Your task to perform on an android device: turn notification dots off Image 0: 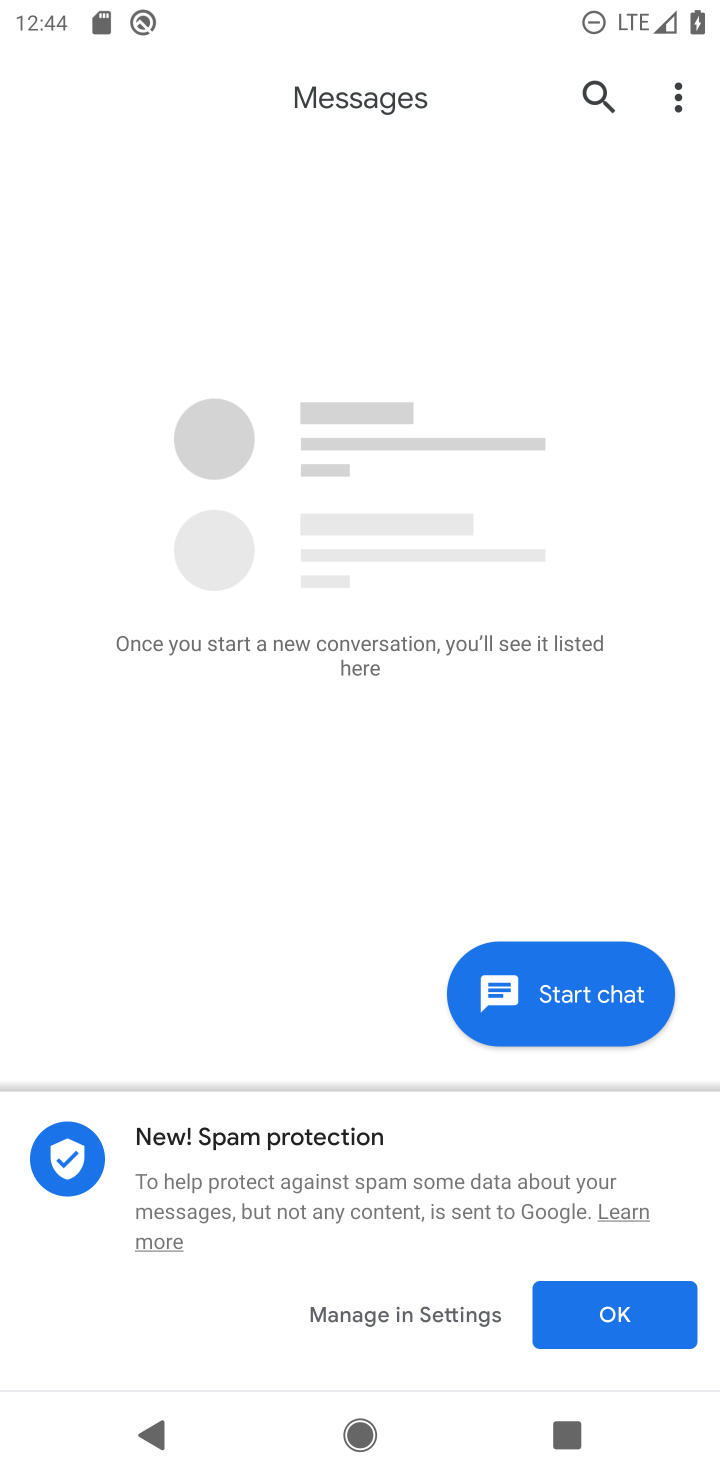
Step 0: press home button
Your task to perform on an android device: turn notification dots off Image 1: 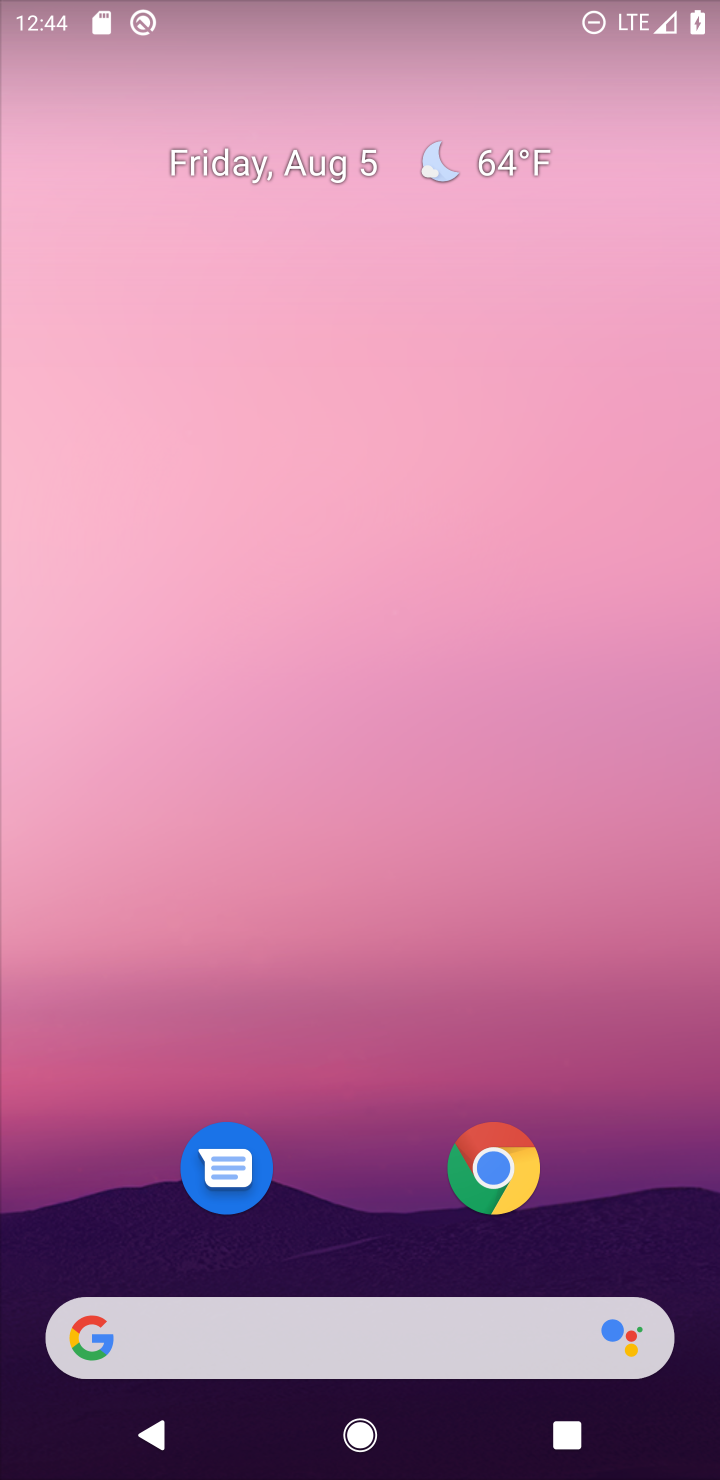
Step 1: drag from (666, 1034) to (471, 26)
Your task to perform on an android device: turn notification dots off Image 2: 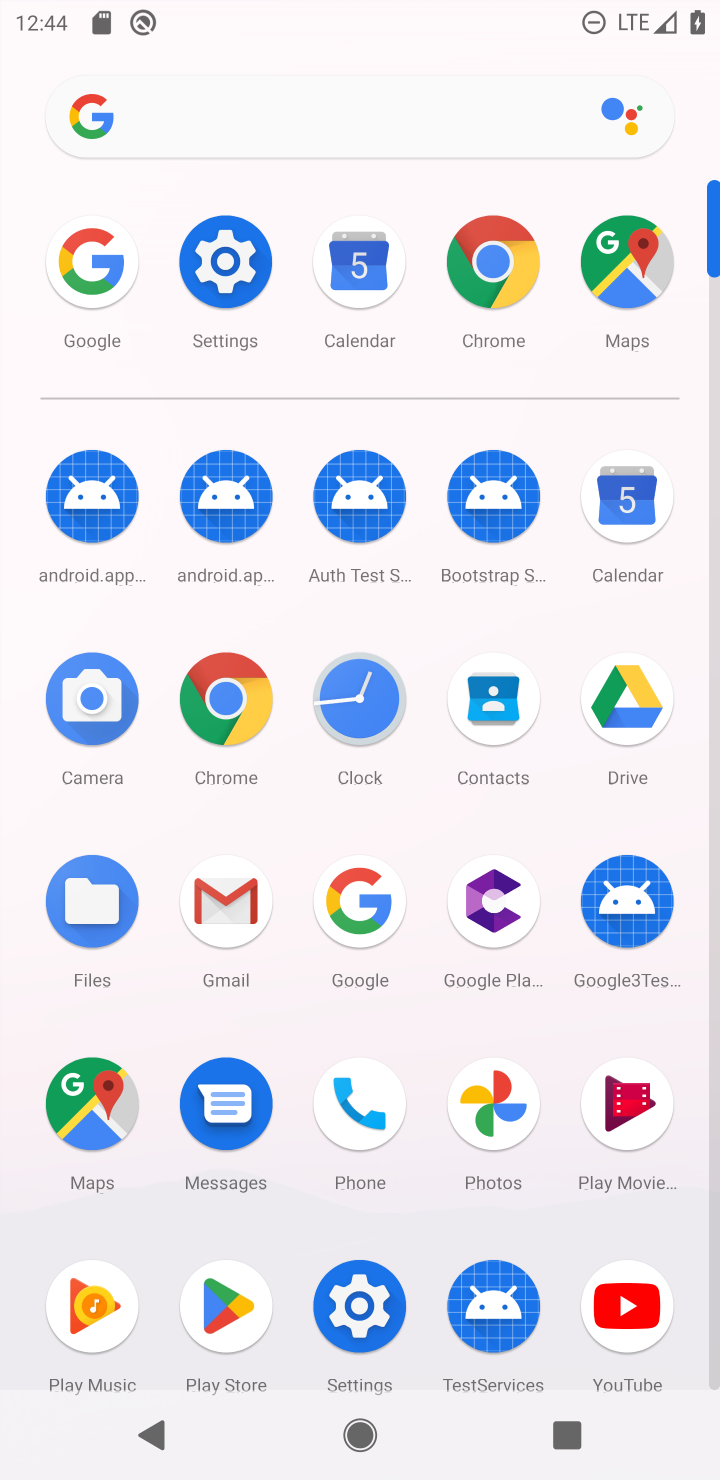
Step 2: click (209, 268)
Your task to perform on an android device: turn notification dots off Image 3: 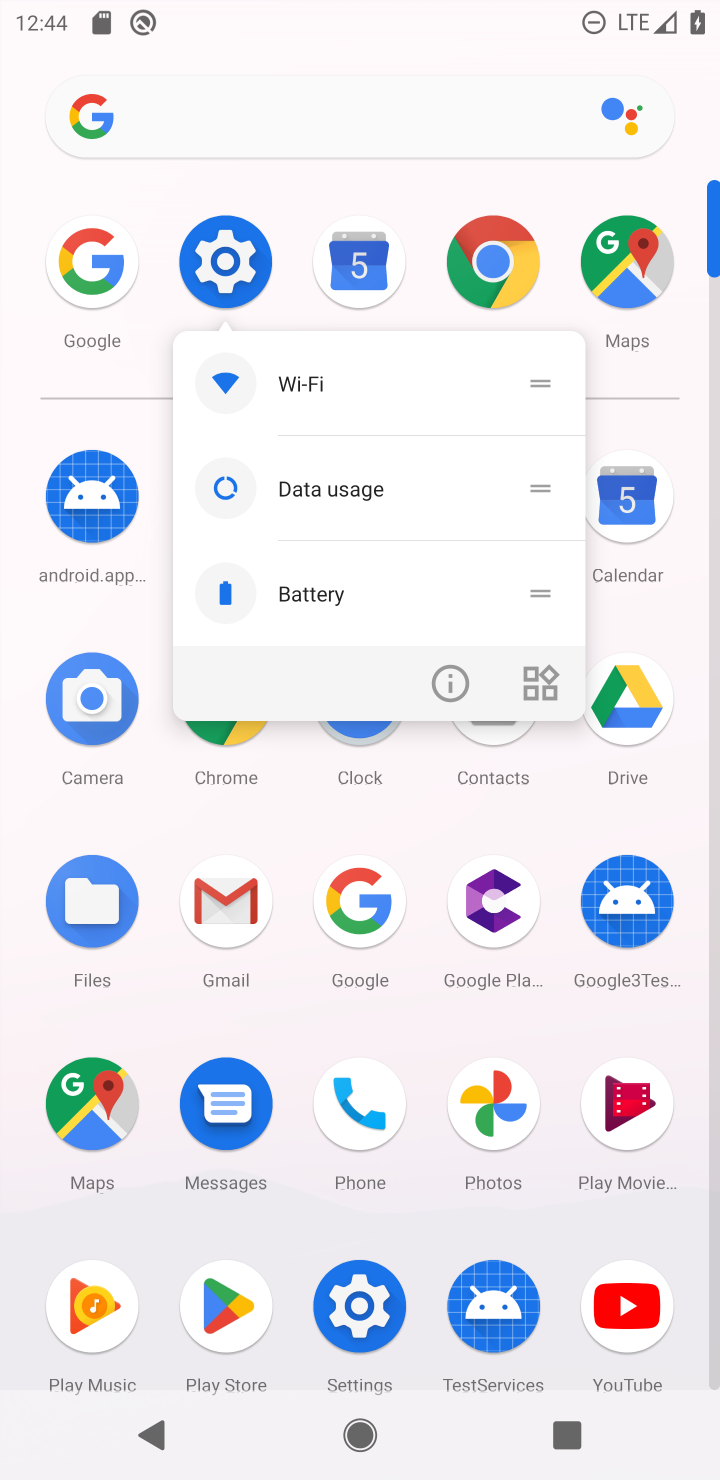
Step 3: click (185, 282)
Your task to perform on an android device: turn notification dots off Image 4: 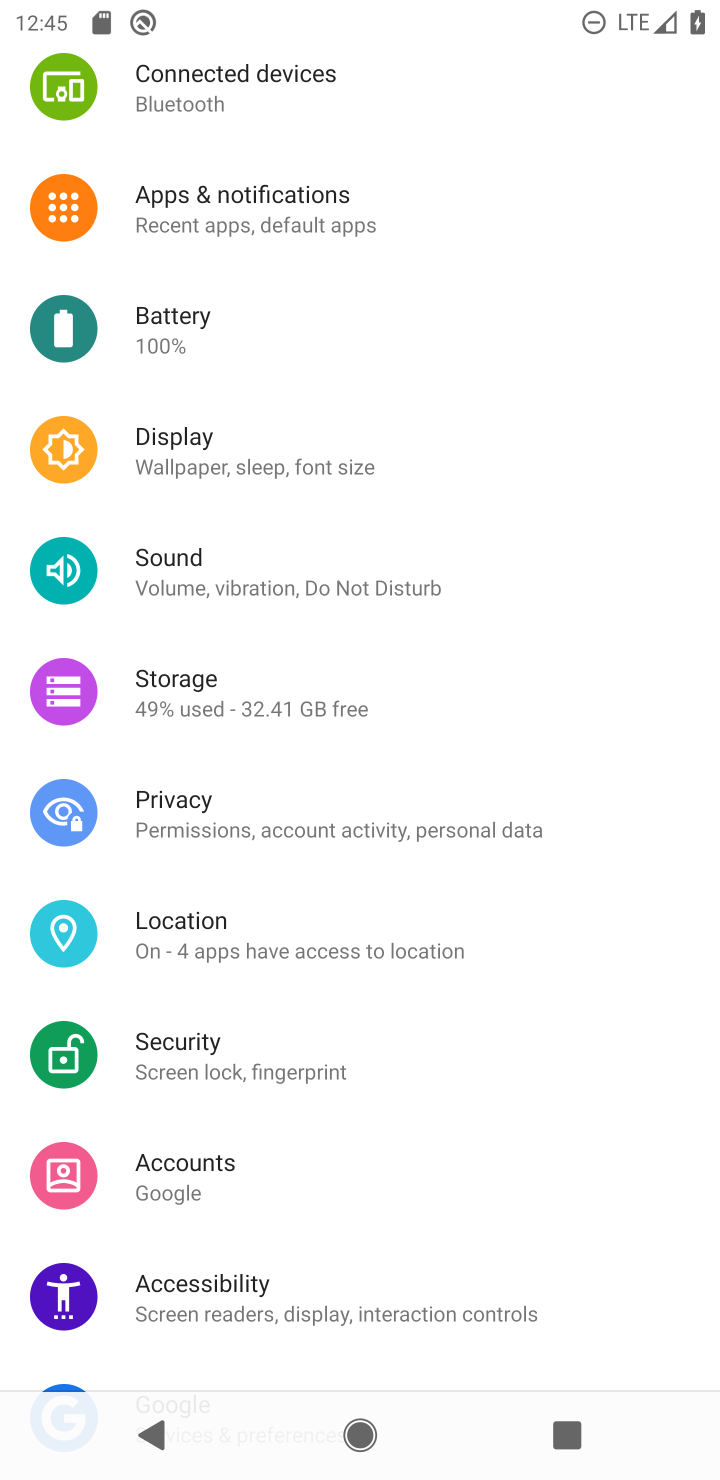
Step 4: click (284, 231)
Your task to perform on an android device: turn notification dots off Image 5: 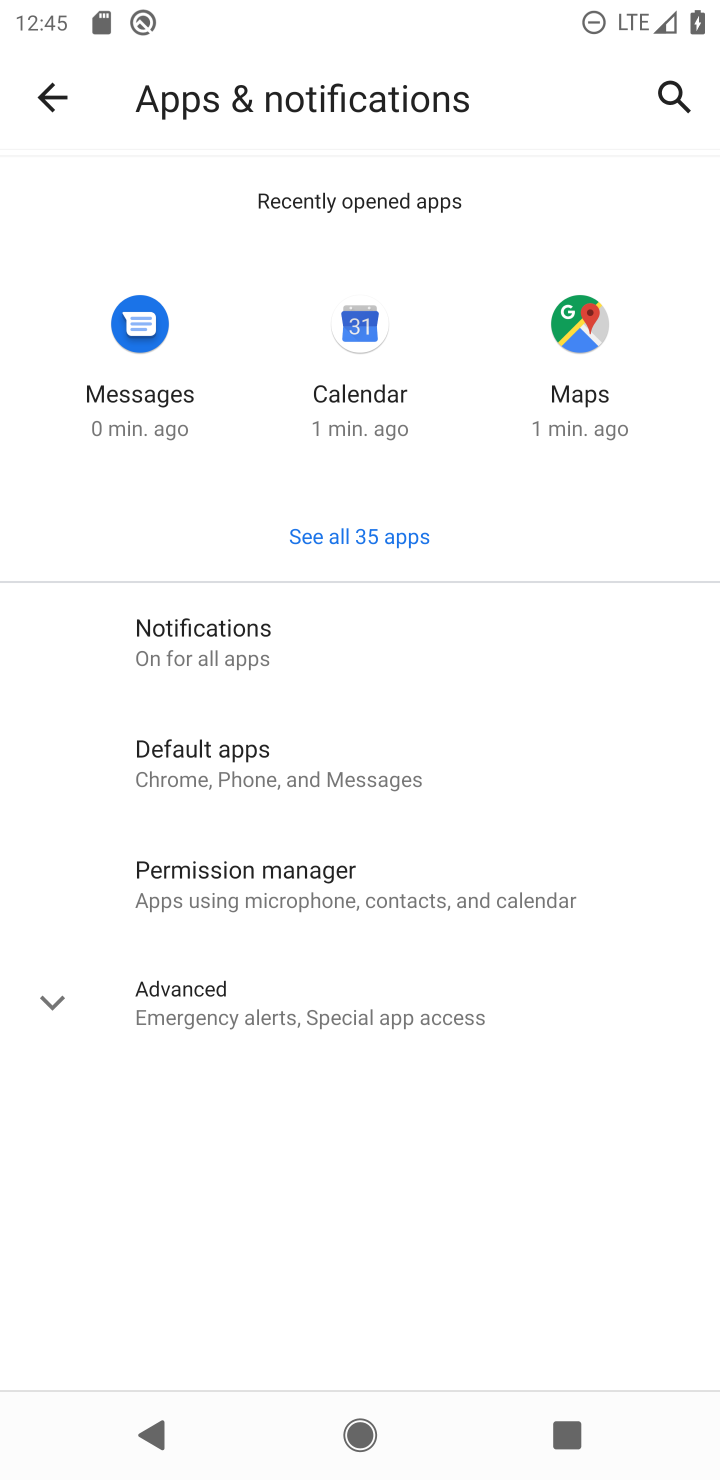
Step 5: click (254, 649)
Your task to perform on an android device: turn notification dots off Image 6: 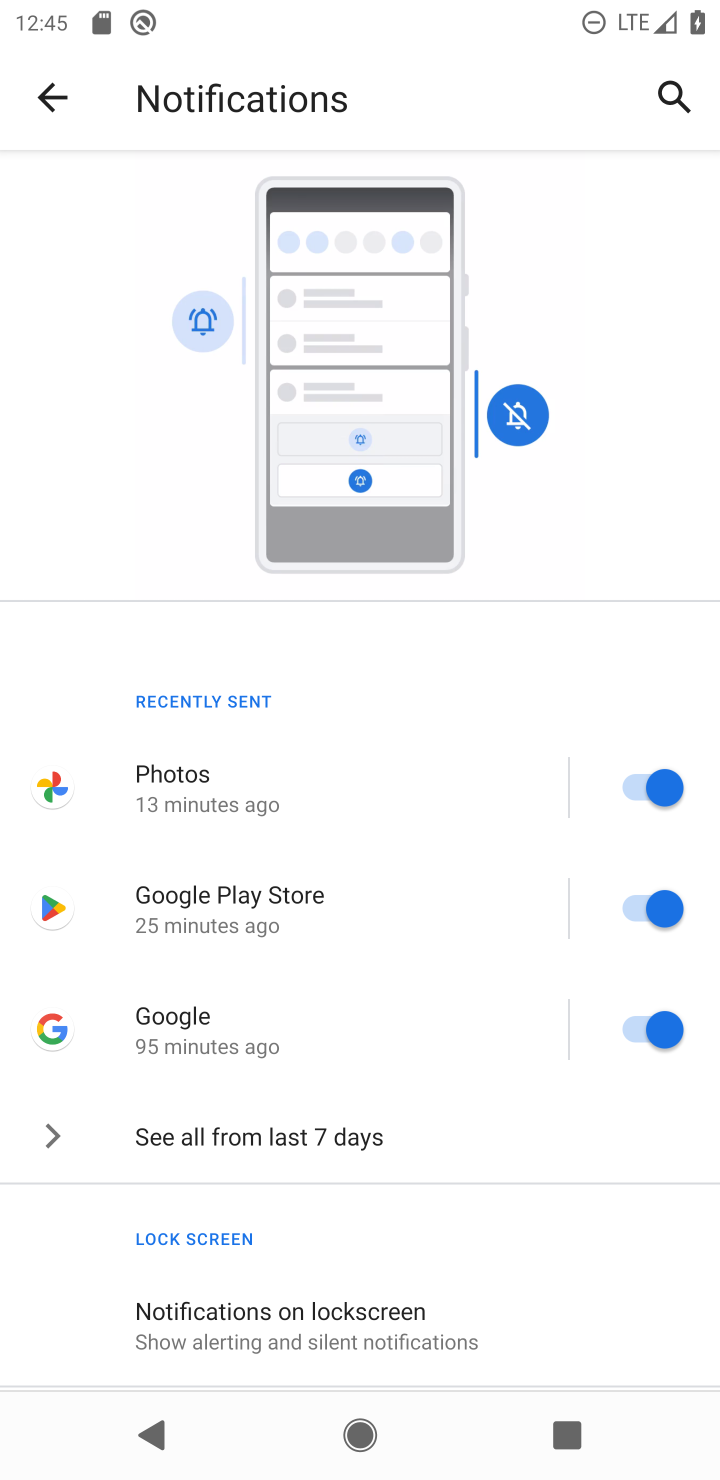
Step 6: drag from (325, 1313) to (280, 118)
Your task to perform on an android device: turn notification dots off Image 7: 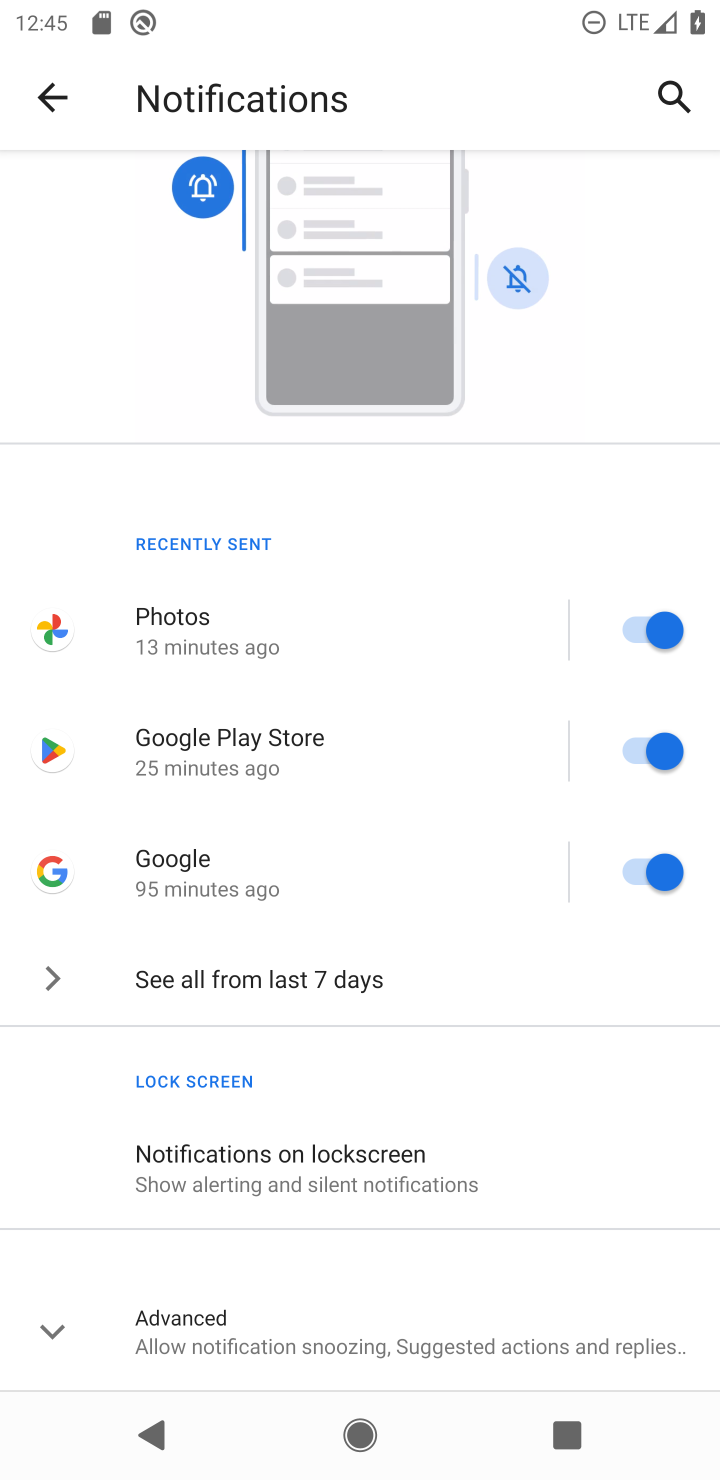
Step 7: click (219, 1317)
Your task to perform on an android device: turn notification dots off Image 8: 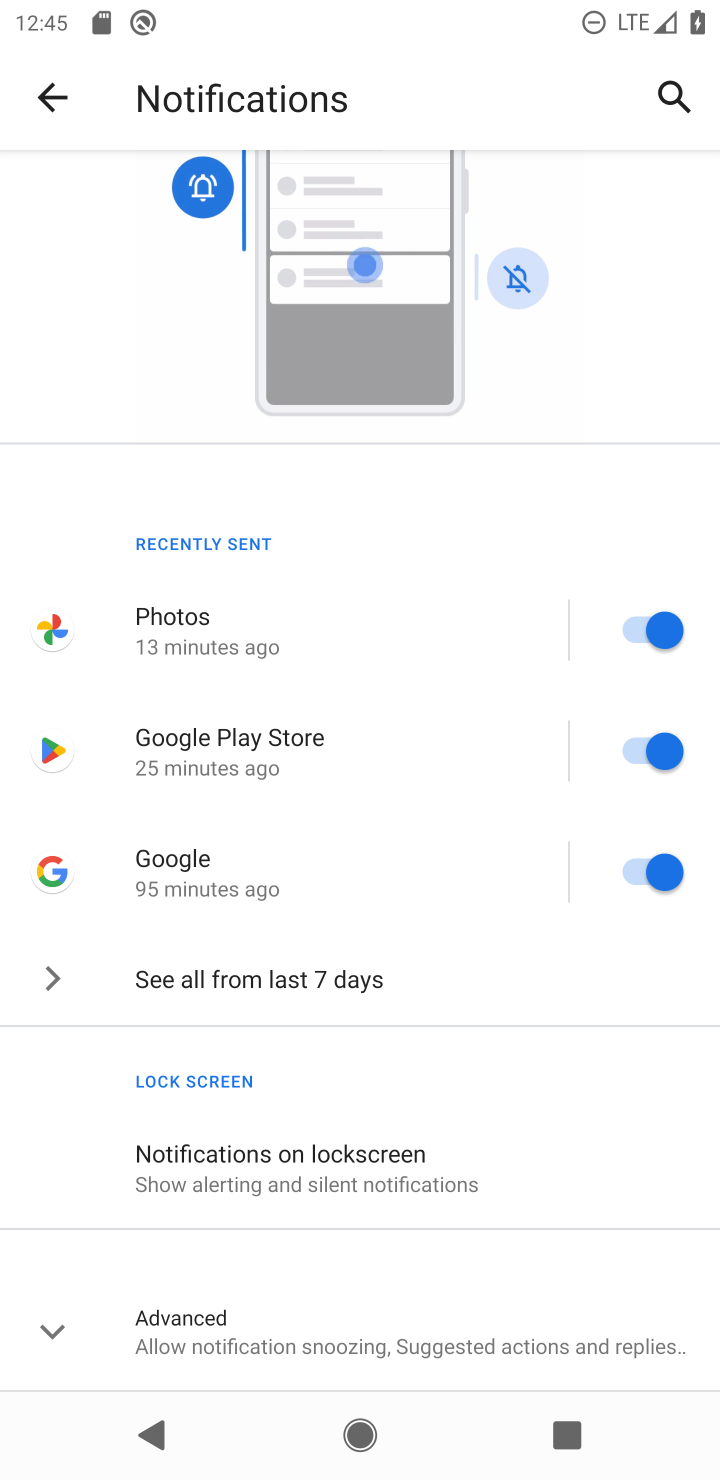
Step 8: task complete